Your task to perform on an android device: Empty the shopping cart on newegg.com. Add "razer huntsman" to the cart on newegg.com, then select checkout. Image 0: 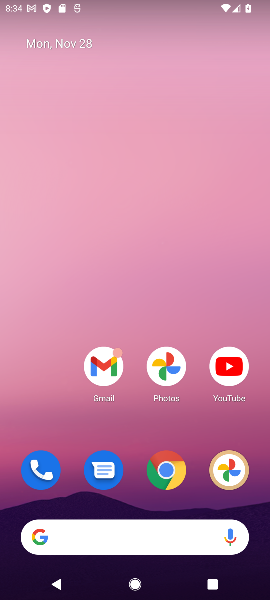
Step 0: click (187, 52)
Your task to perform on an android device: Empty the shopping cart on newegg.com. Add "razer huntsman" to the cart on newegg.com, then select checkout. Image 1: 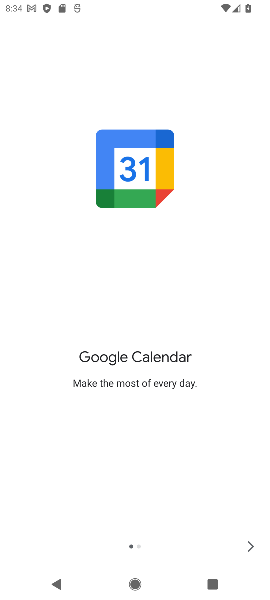
Step 1: press home button
Your task to perform on an android device: Empty the shopping cart on newegg.com. Add "razer huntsman" to the cart on newegg.com, then select checkout. Image 2: 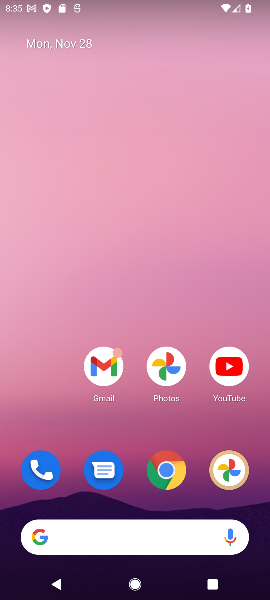
Step 2: click (109, 513)
Your task to perform on an android device: Empty the shopping cart on newegg.com. Add "razer huntsman" to the cart on newegg.com, then select checkout. Image 3: 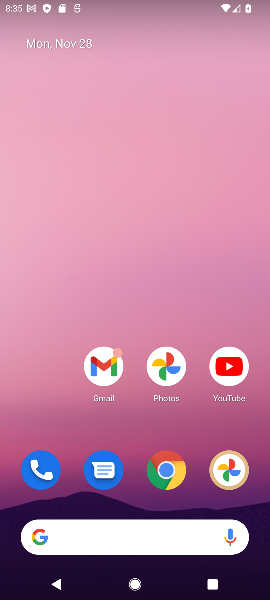
Step 3: click (92, 541)
Your task to perform on an android device: Empty the shopping cart on newegg.com. Add "razer huntsman" to the cart on newegg.com, then select checkout. Image 4: 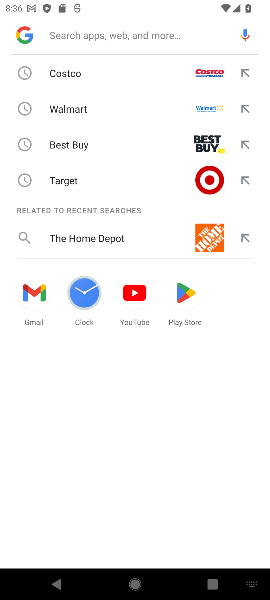
Step 4: type "newegg.com"
Your task to perform on an android device: Empty the shopping cart on newegg.com. Add "razer huntsman" to the cart on newegg.com, then select checkout. Image 5: 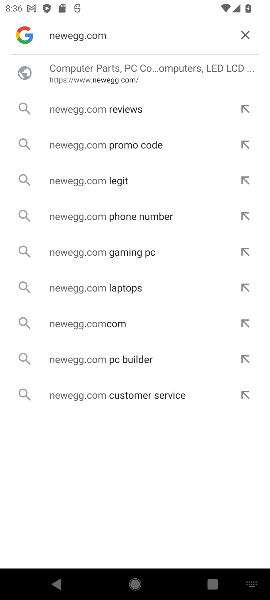
Step 5: click (85, 83)
Your task to perform on an android device: Empty the shopping cart on newegg.com. Add "razer huntsman" to the cart on newegg.com, then select checkout. Image 6: 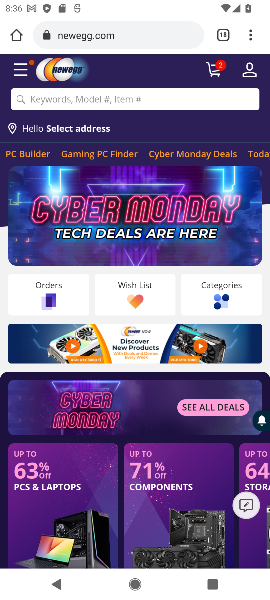
Step 6: click (217, 72)
Your task to perform on an android device: Empty the shopping cart on newegg.com. Add "razer huntsman" to the cart on newegg.com, then select checkout. Image 7: 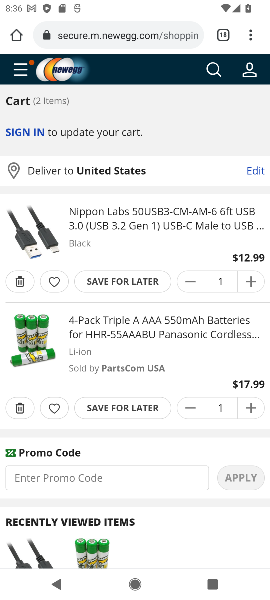
Step 7: click (24, 405)
Your task to perform on an android device: Empty the shopping cart on newegg.com. Add "razer huntsman" to the cart on newegg.com, then select checkout. Image 8: 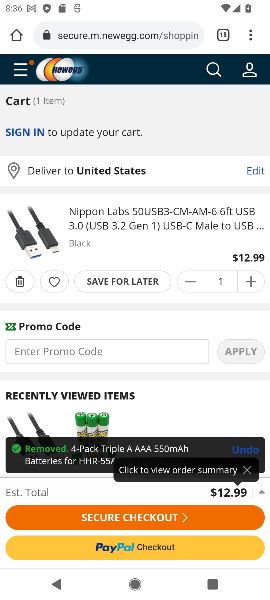
Step 8: click (19, 278)
Your task to perform on an android device: Empty the shopping cart on newegg.com. Add "razer huntsman" to the cart on newegg.com, then select checkout. Image 9: 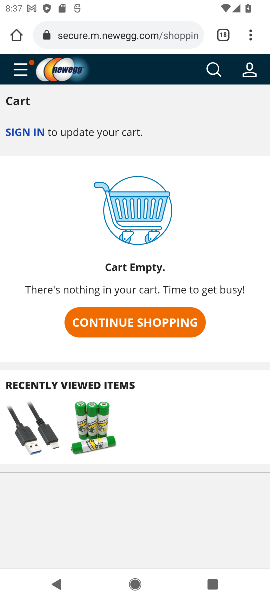
Step 9: click (222, 66)
Your task to perform on an android device: Empty the shopping cart on newegg.com. Add "razer huntsman" to the cart on newegg.com, then select checkout. Image 10: 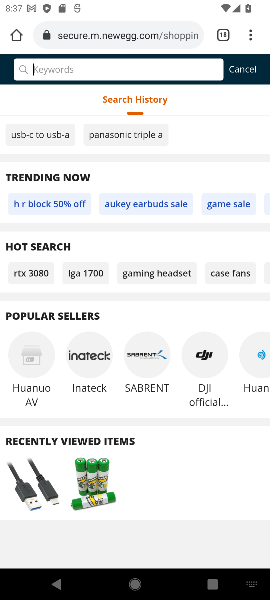
Step 10: type "razer huntsman"
Your task to perform on an android device: Empty the shopping cart on newegg.com. Add "razer huntsman" to the cart on newegg.com, then select checkout. Image 11: 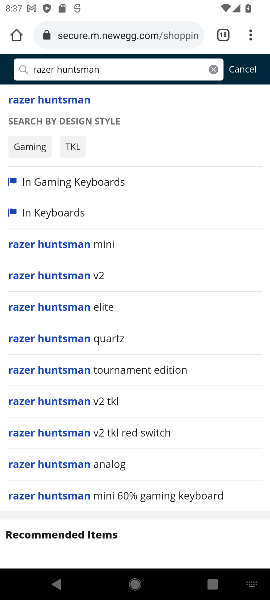
Step 11: click (32, 101)
Your task to perform on an android device: Empty the shopping cart on newegg.com. Add "razer huntsman" to the cart on newegg.com, then select checkout. Image 12: 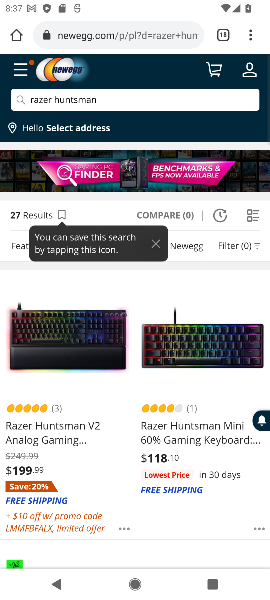
Step 12: click (59, 360)
Your task to perform on an android device: Empty the shopping cart on newegg.com. Add "razer huntsman" to the cart on newegg.com, then select checkout. Image 13: 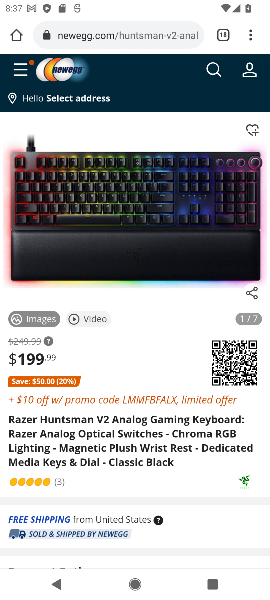
Step 13: click (135, 555)
Your task to perform on an android device: Empty the shopping cart on newegg.com. Add "razer huntsman" to the cart on newegg.com, then select checkout. Image 14: 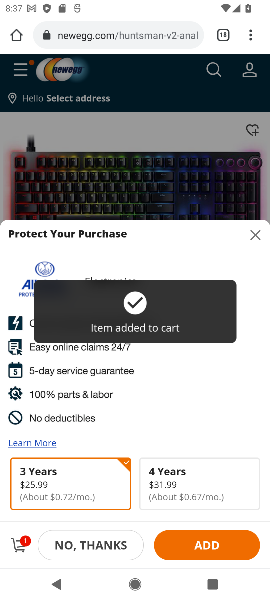
Step 14: click (13, 551)
Your task to perform on an android device: Empty the shopping cart on newegg.com. Add "razer huntsman" to the cart on newegg.com, then select checkout. Image 15: 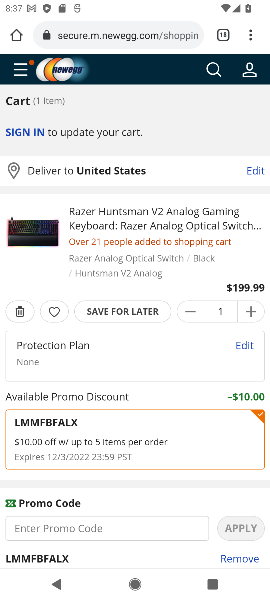
Step 15: task complete